Your task to perform on an android device: toggle sleep mode Image 0: 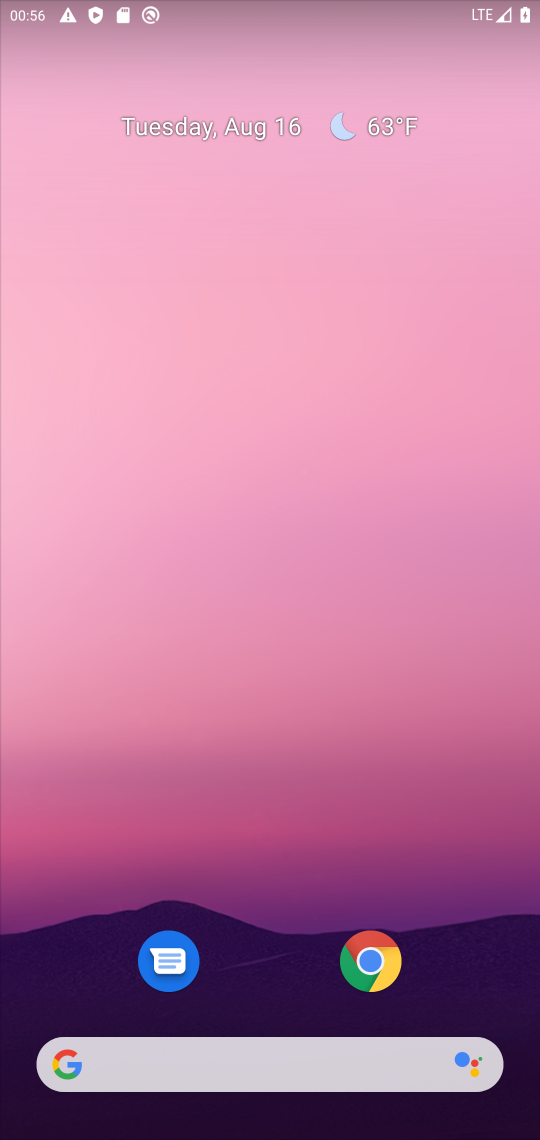
Step 0: press home button
Your task to perform on an android device: toggle sleep mode Image 1: 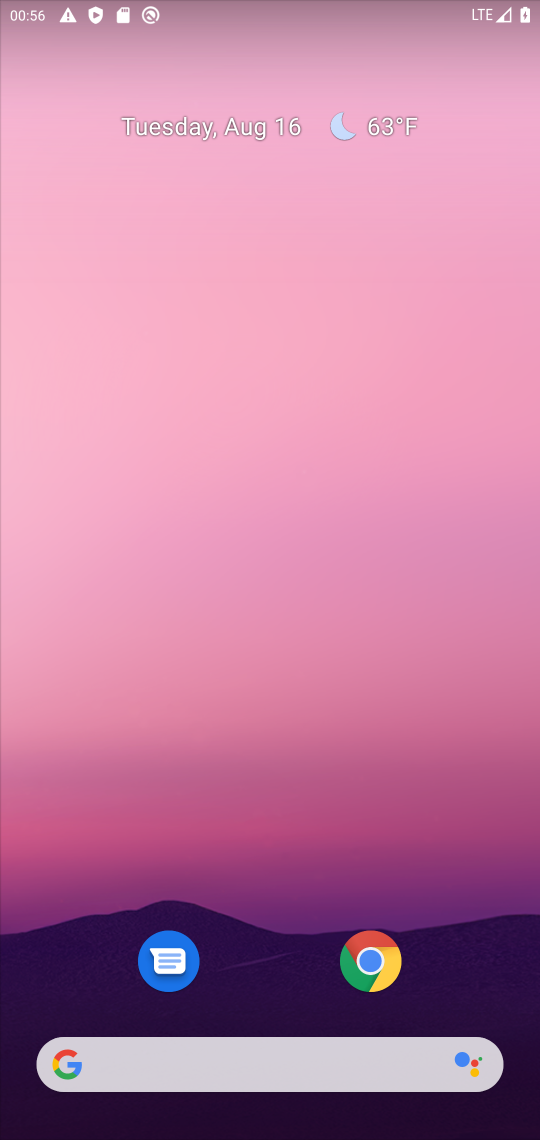
Step 1: click (292, 101)
Your task to perform on an android device: toggle sleep mode Image 2: 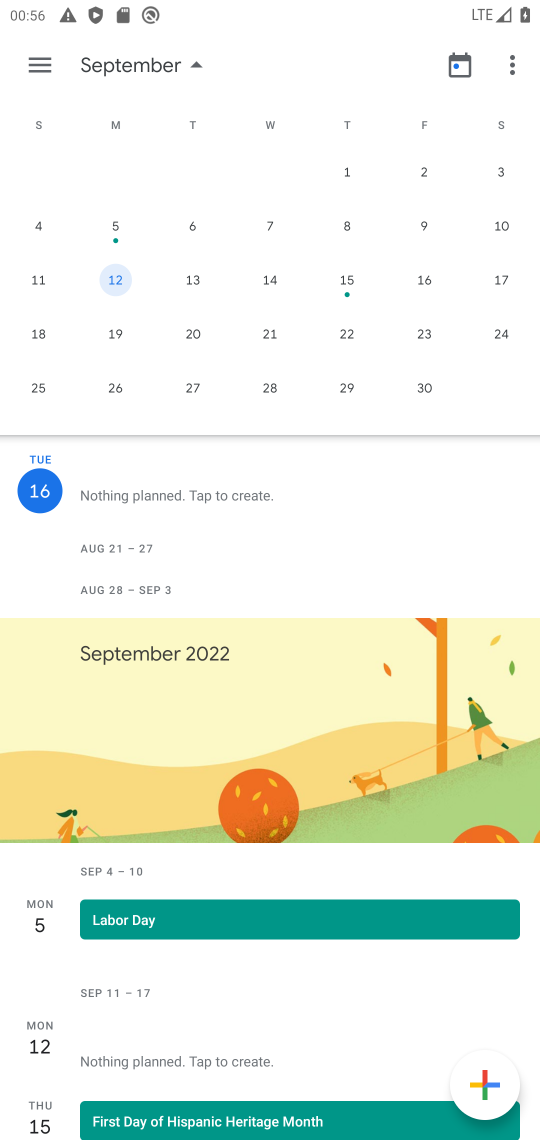
Step 2: press home button
Your task to perform on an android device: toggle sleep mode Image 3: 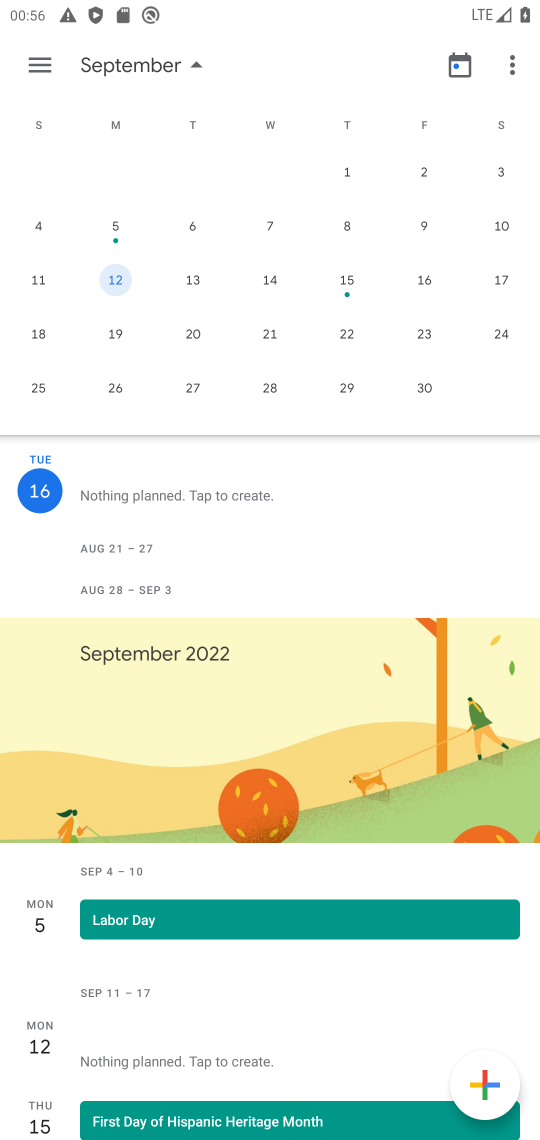
Step 3: drag from (276, 1105) to (320, 32)
Your task to perform on an android device: toggle sleep mode Image 4: 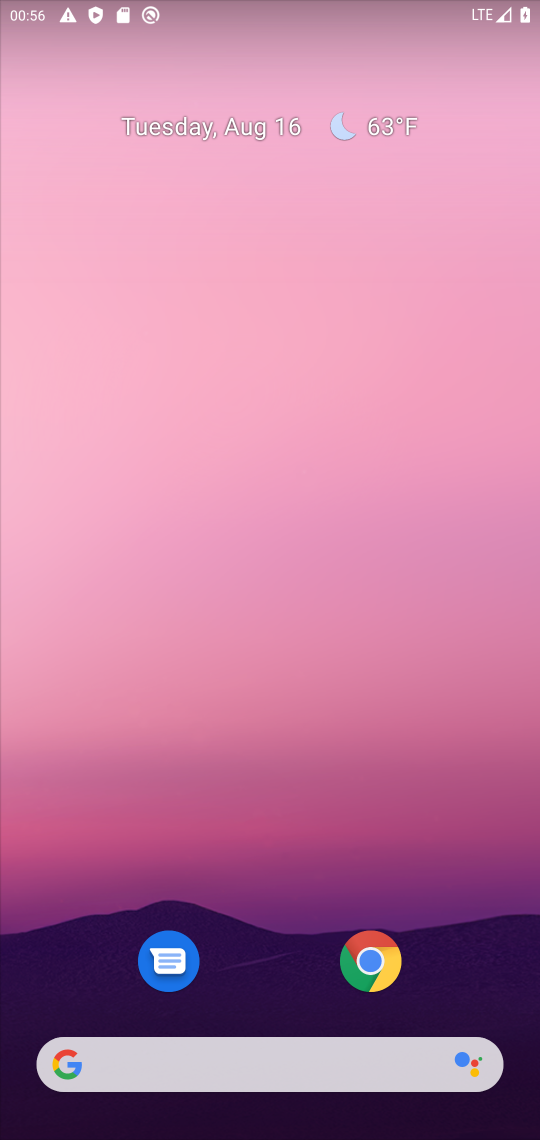
Step 4: drag from (180, 821) to (189, 2)
Your task to perform on an android device: toggle sleep mode Image 5: 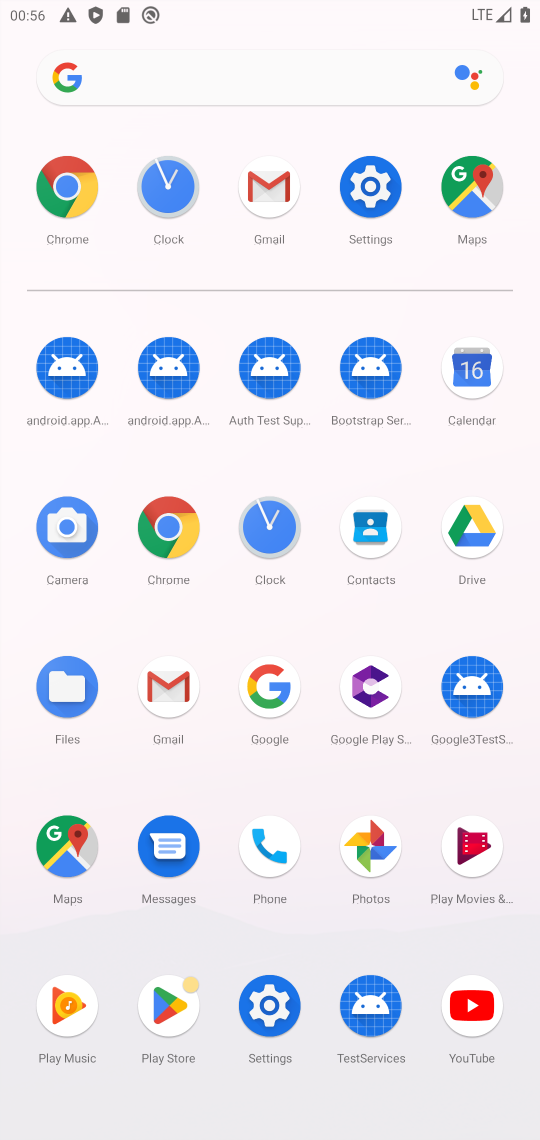
Step 5: click (360, 257)
Your task to perform on an android device: toggle sleep mode Image 6: 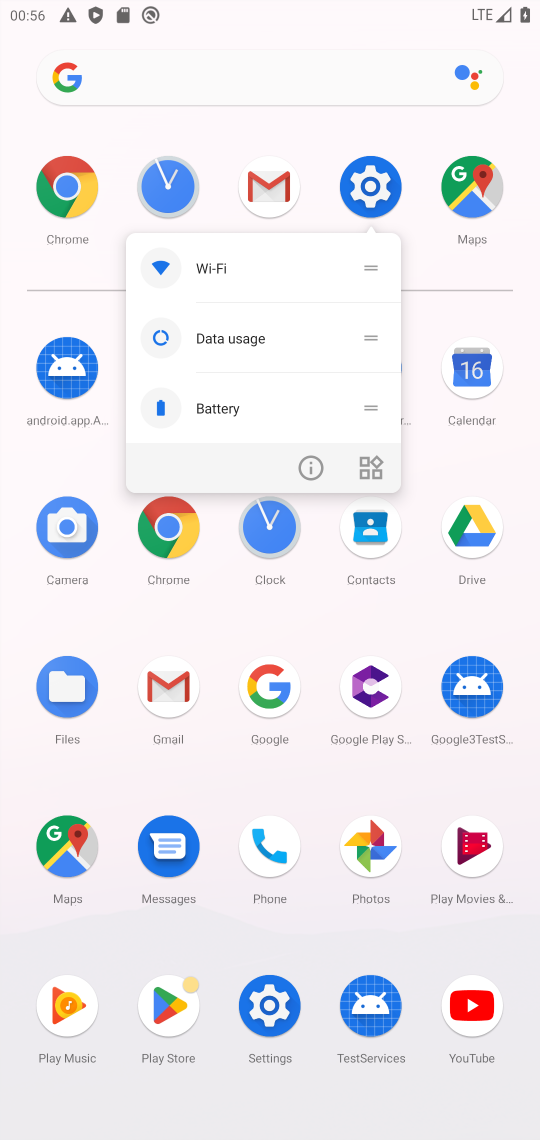
Step 6: click (375, 178)
Your task to perform on an android device: toggle sleep mode Image 7: 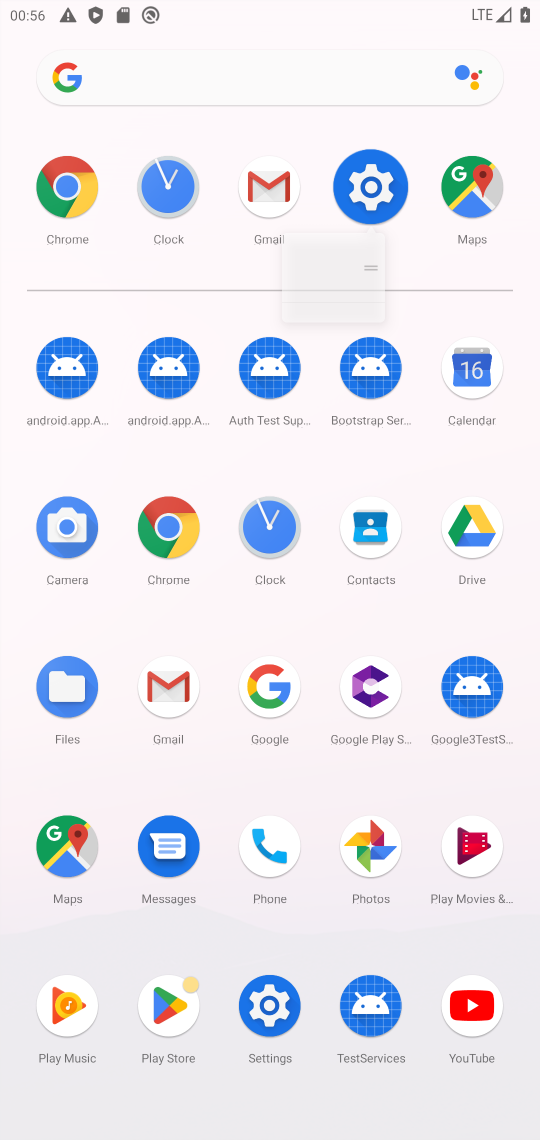
Step 7: click (375, 178)
Your task to perform on an android device: toggle sleep mode Image 8: 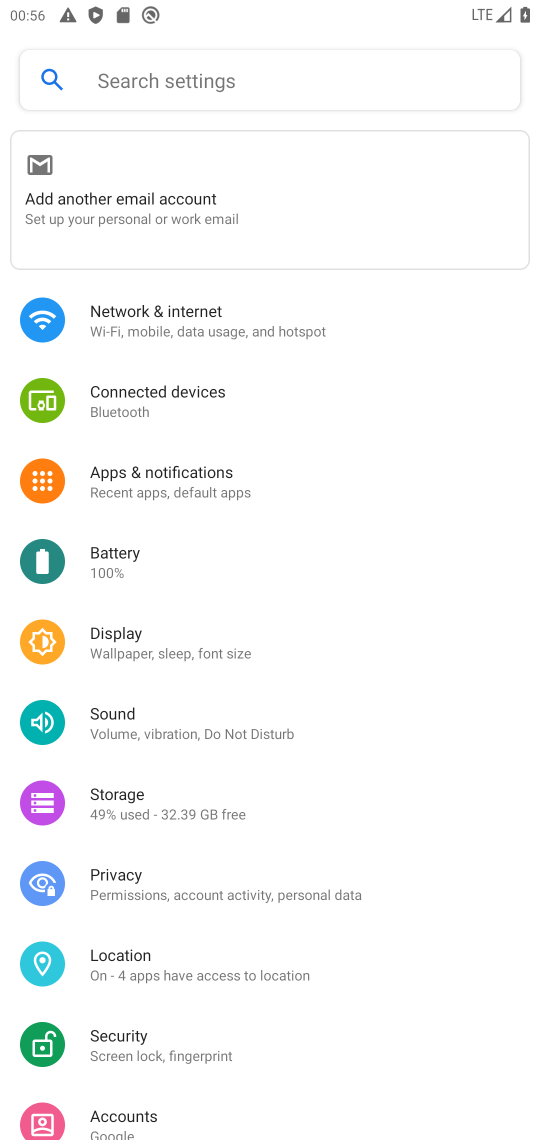
Step 8: click (97, 645)
Your task to perform on an android device: toggle sleep mode Image 9: 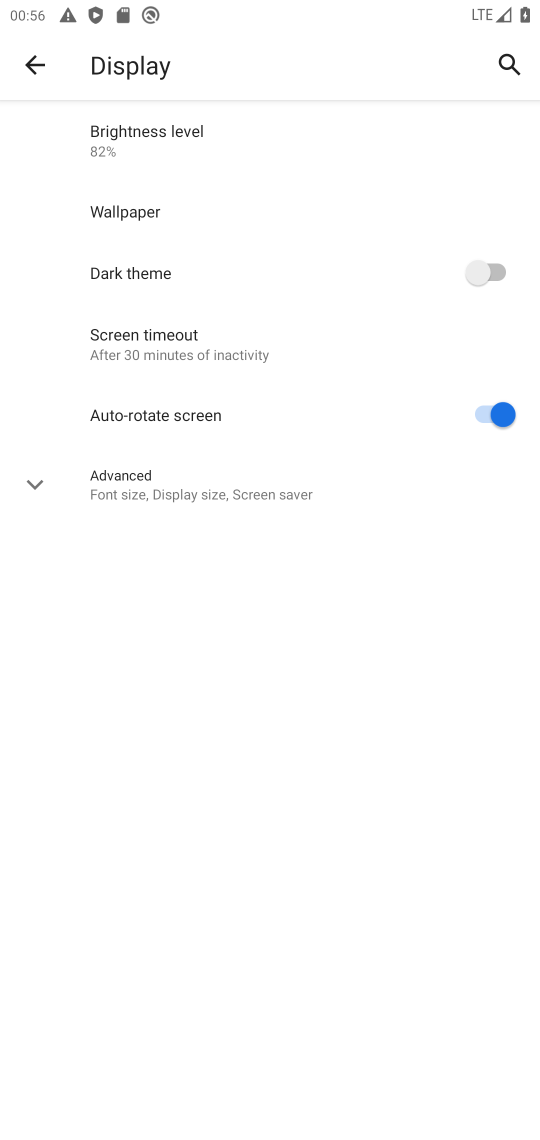
Step 9: task complete